Your task to perform on an android device: Open maps Image 0: 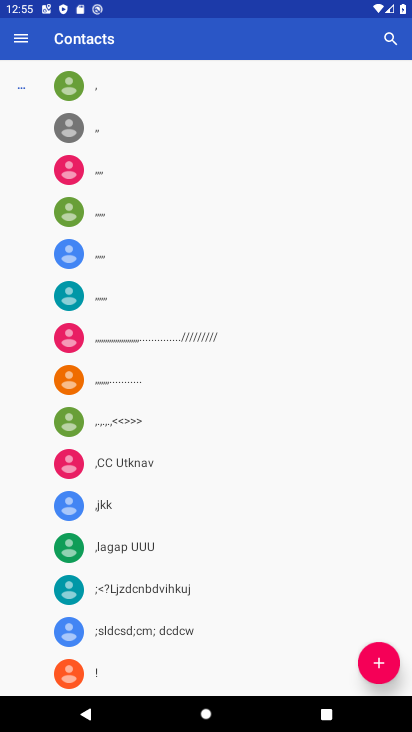
Step 0: press home button
Your task to perform on an android device: Open maps Image 1: 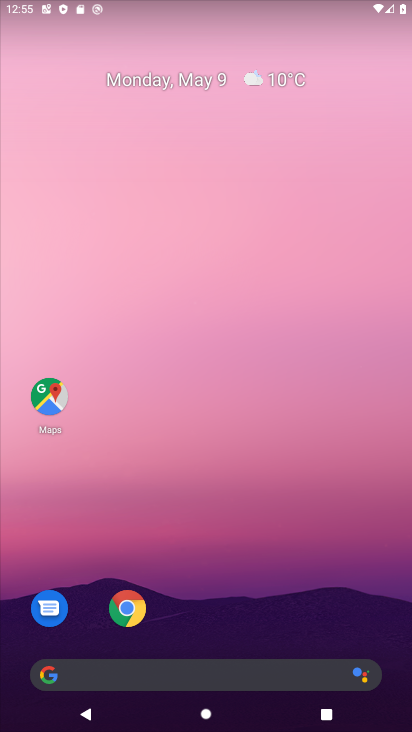
Step 1: drag from (225, 548) to (277, 18)
Your task to perform on an android device: Open maps Image 2: 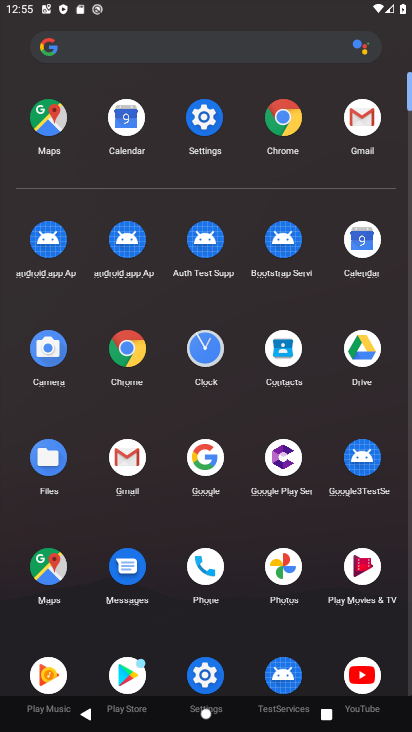
Step 2: click (43, 133)
Your task to perform on an android device: Open maps Image 3: 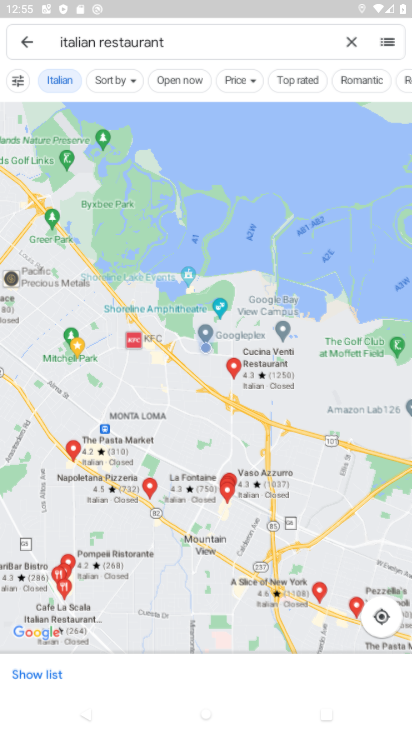
Step 3: task complete